Your task to perform on an android device: uninstall "Facebook Lite" Image 0: 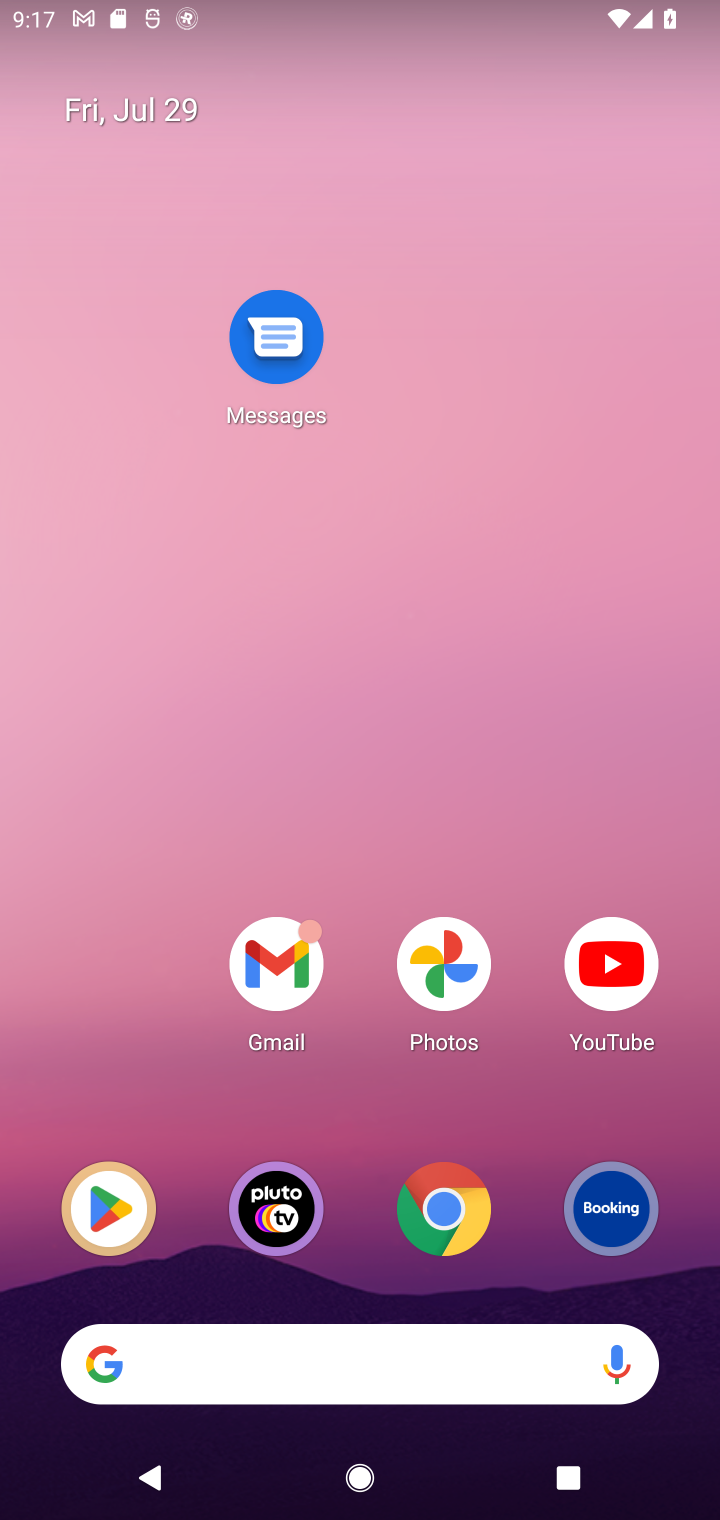
Step 0: drag from (298, 1343) to (350, 158)
Your task to perform on an android device: uninstall "Facebook Lite" Image 1: 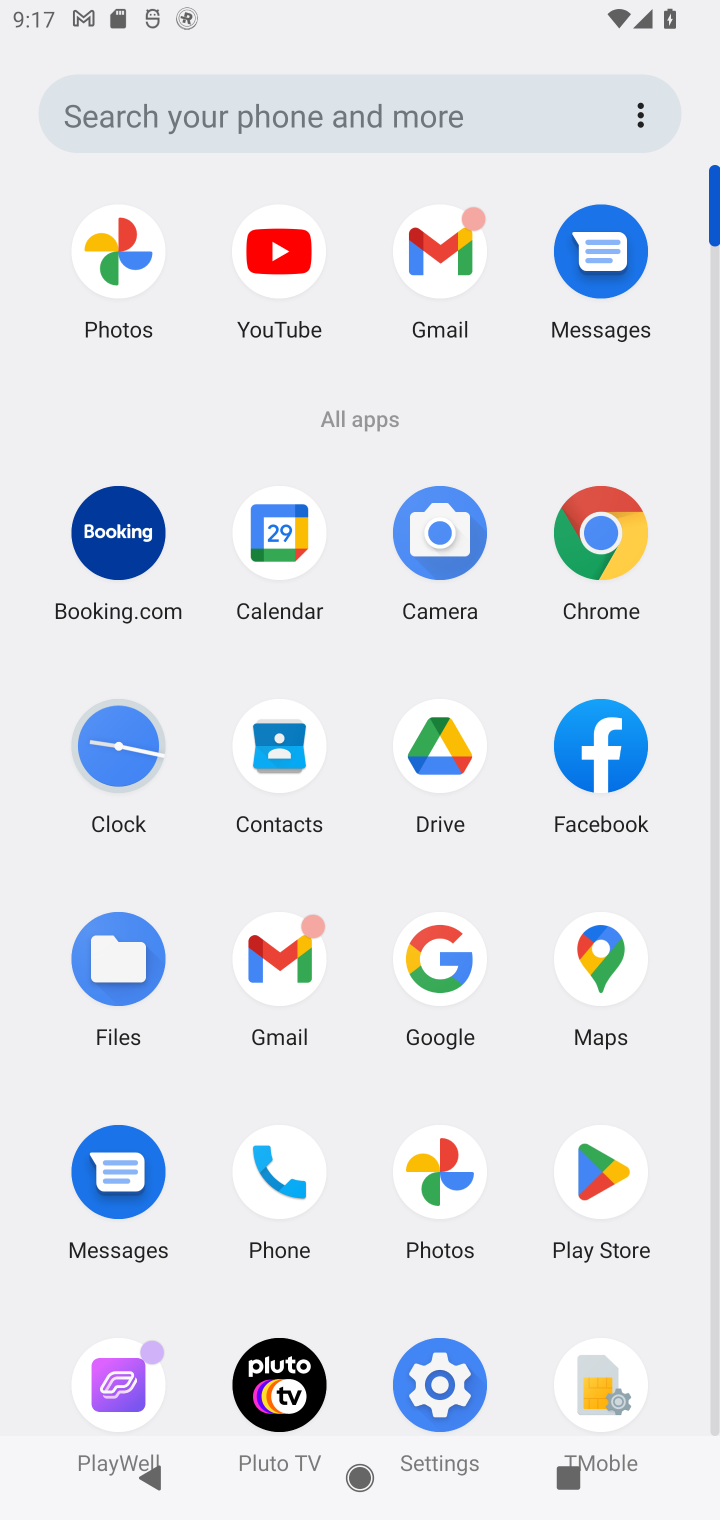
Step 1: drag from (349, 1242) to (342, 486)
Your task to perform on an android device: uninstall "Facebook Lite" Image 2: 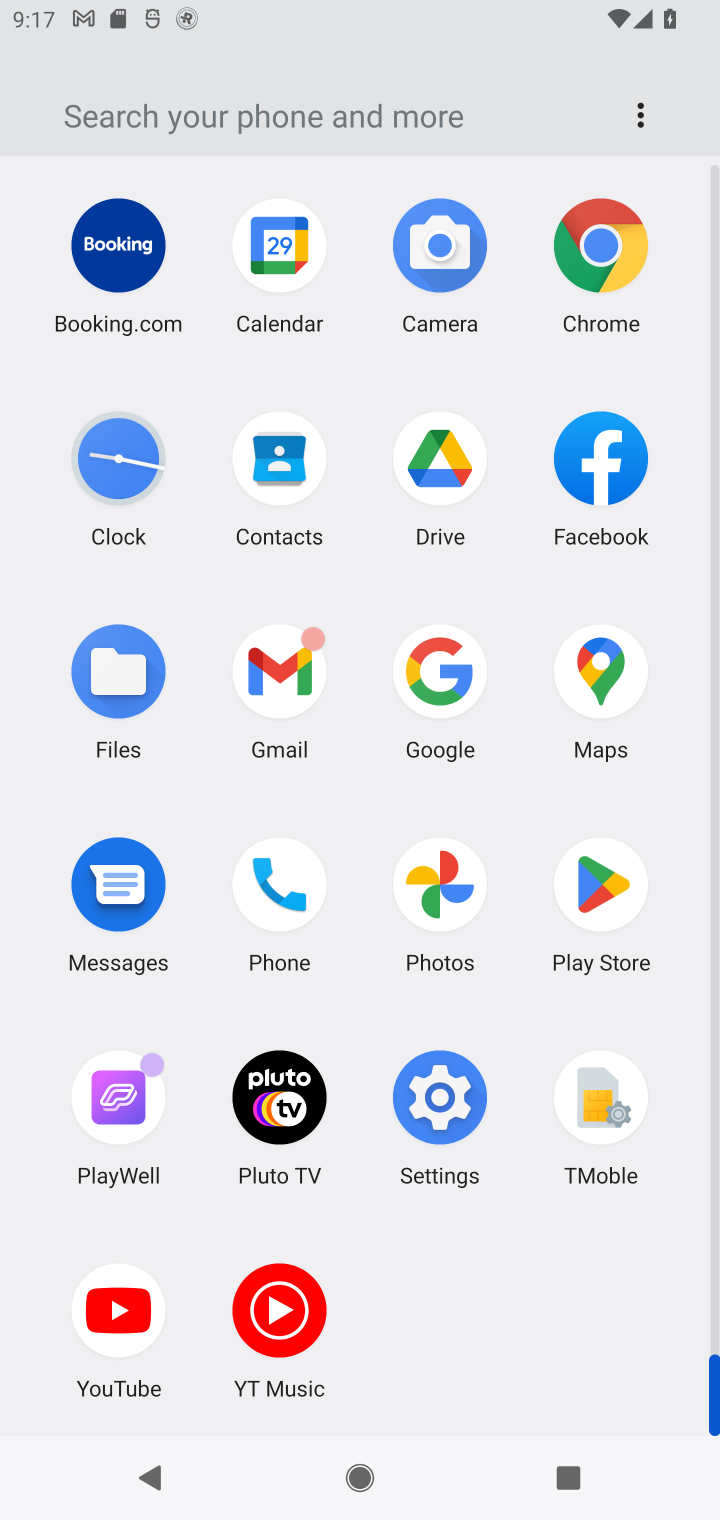
Step 2: click (600, 894)
Your task to perform on an android device: uninstall "Facebook Lite" Image 3: 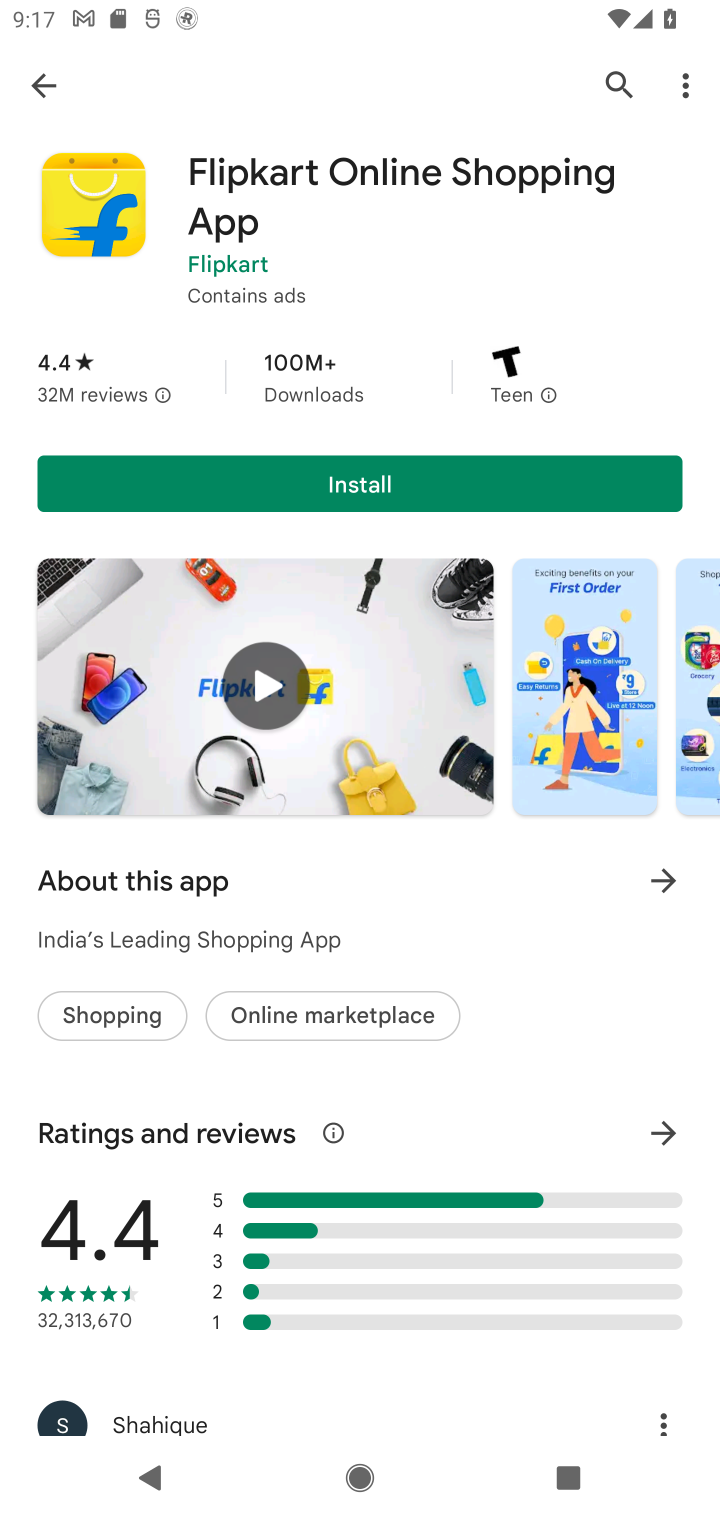
Step 3: click (616, 83)
Your task to perform on an android device: uninstall "Facebook Lite" Image 4: 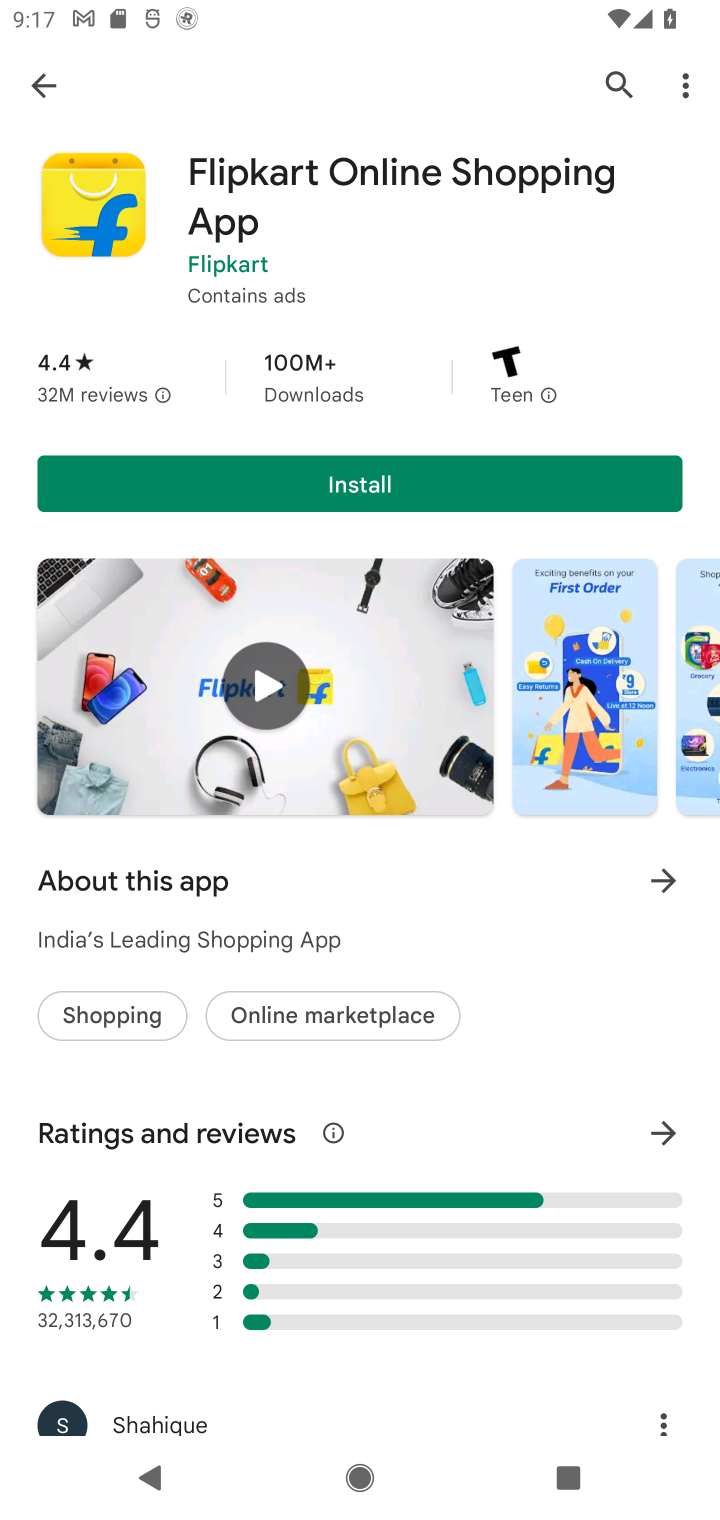
Step 4: click (548, 85)
Your task to perform on an android device: uninstall "Facebook Lite" Image 5: 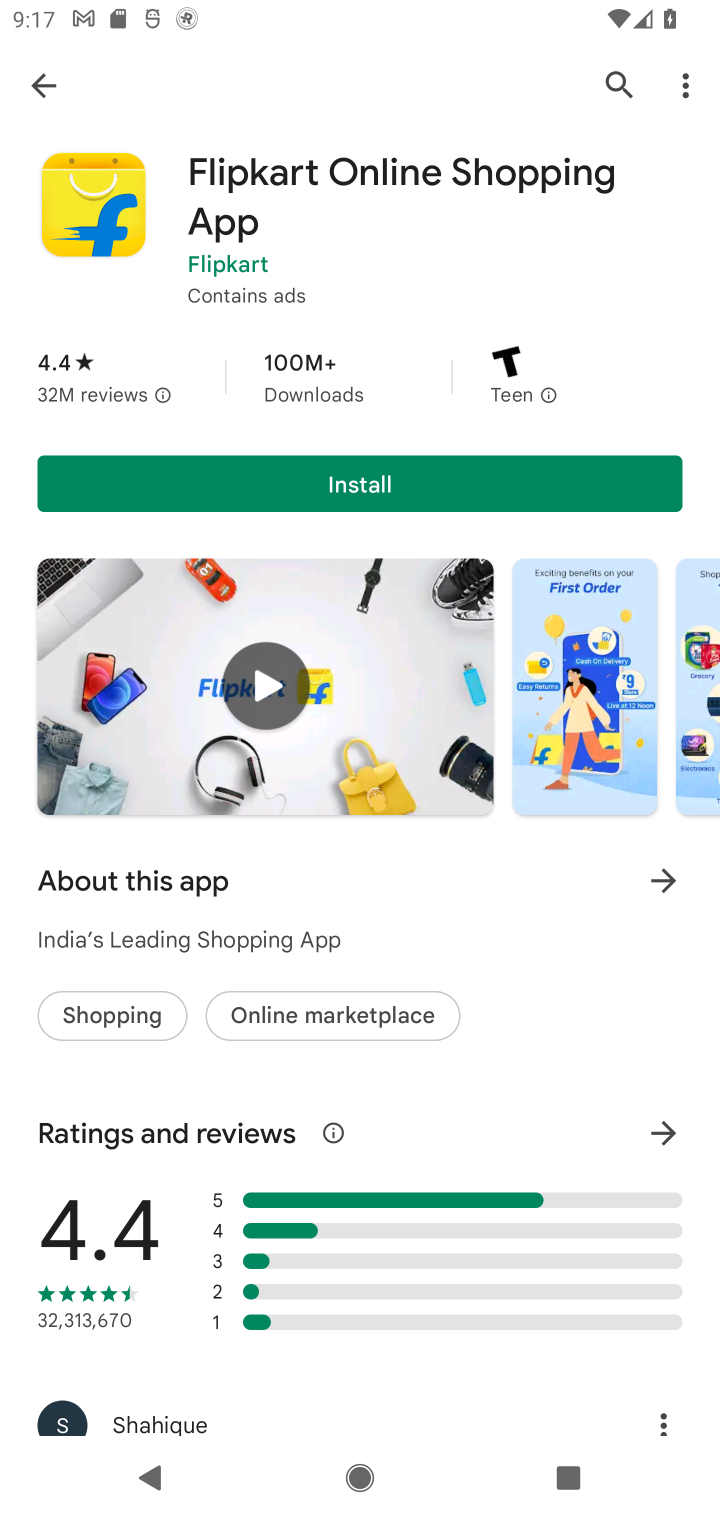
Step 5: click (615, 88)
Your task to perform on an android device: uninstall "Facebook Lite" Image 6: 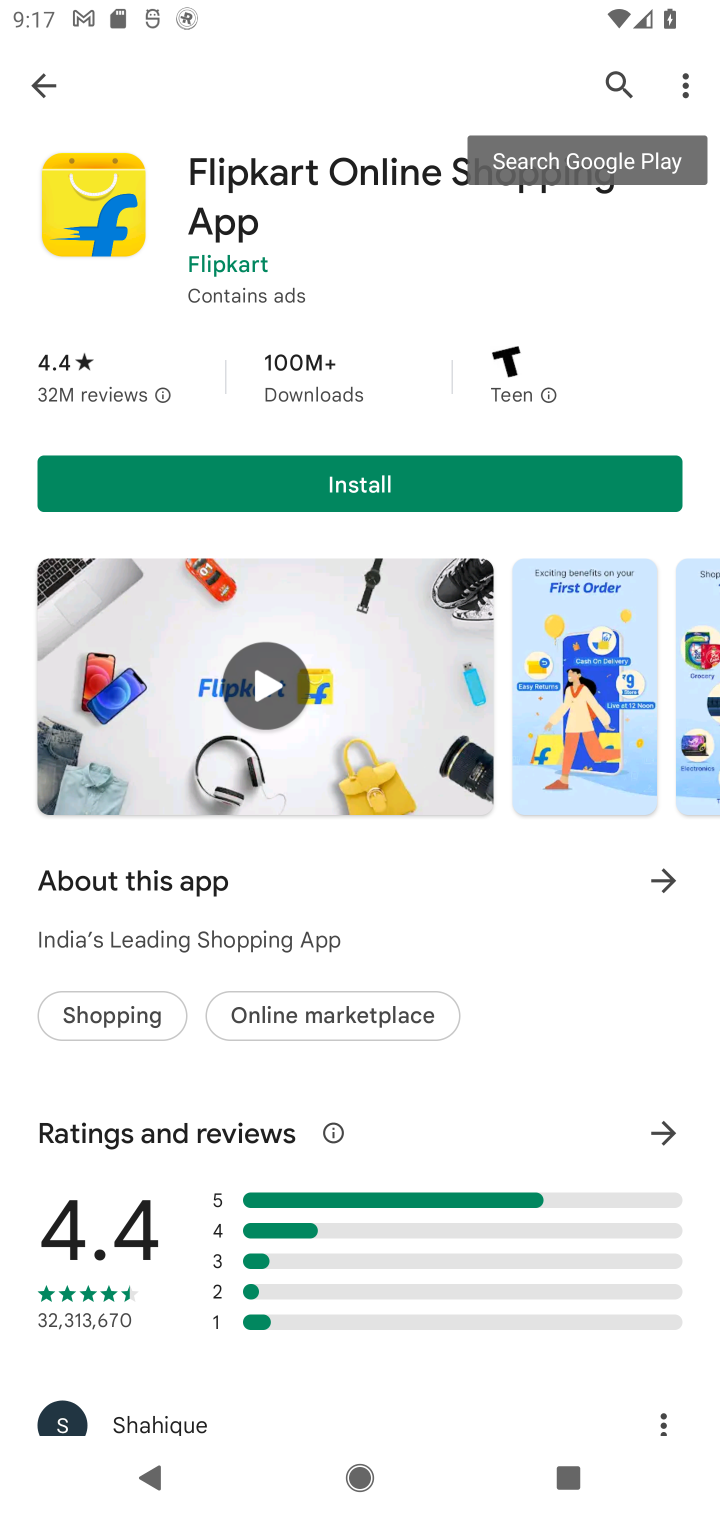
Step 6: click (373, 86)
Your task to perform on an android device: uninstall "Facebook Lite" Image 7: 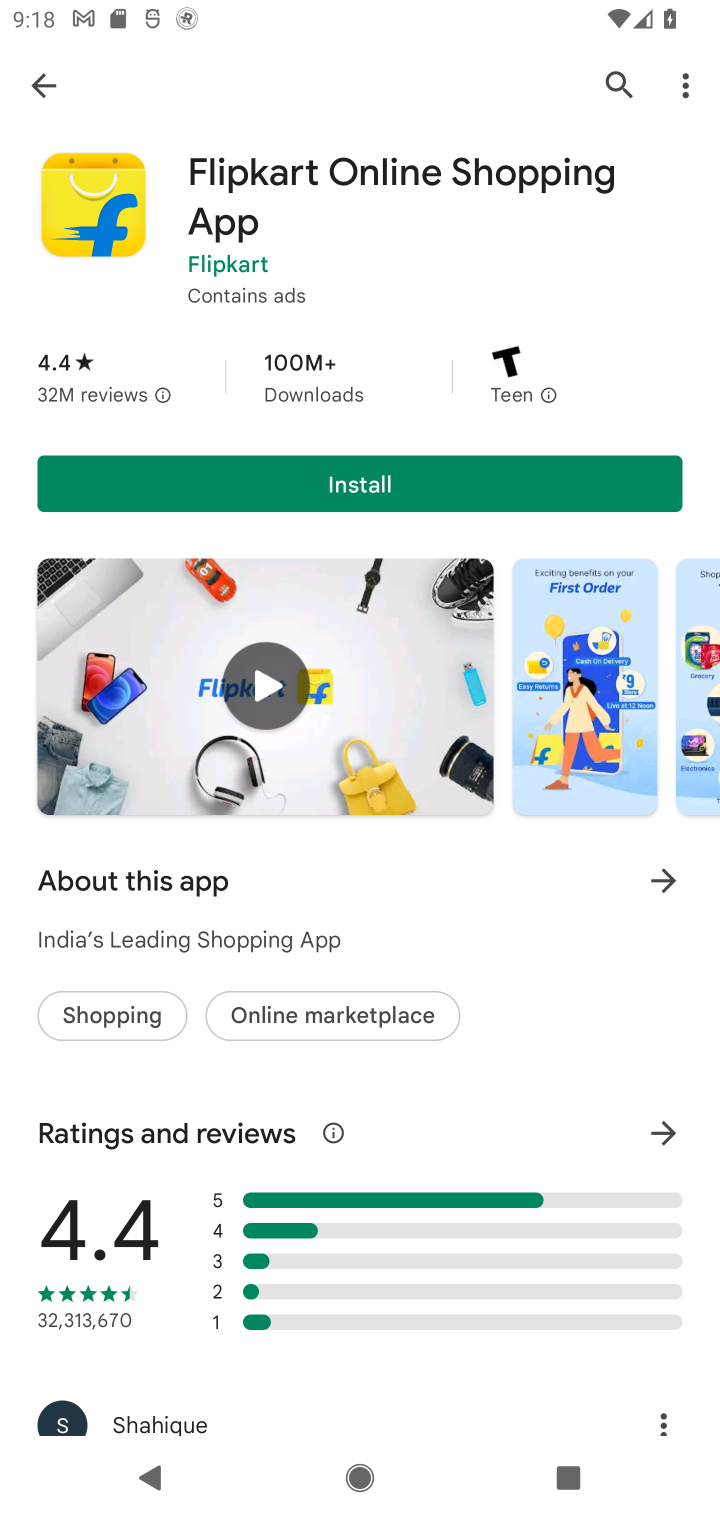
Step 7: press back button
Your task to perform on an android device: uninstall "Facebook Lite" Image 8: 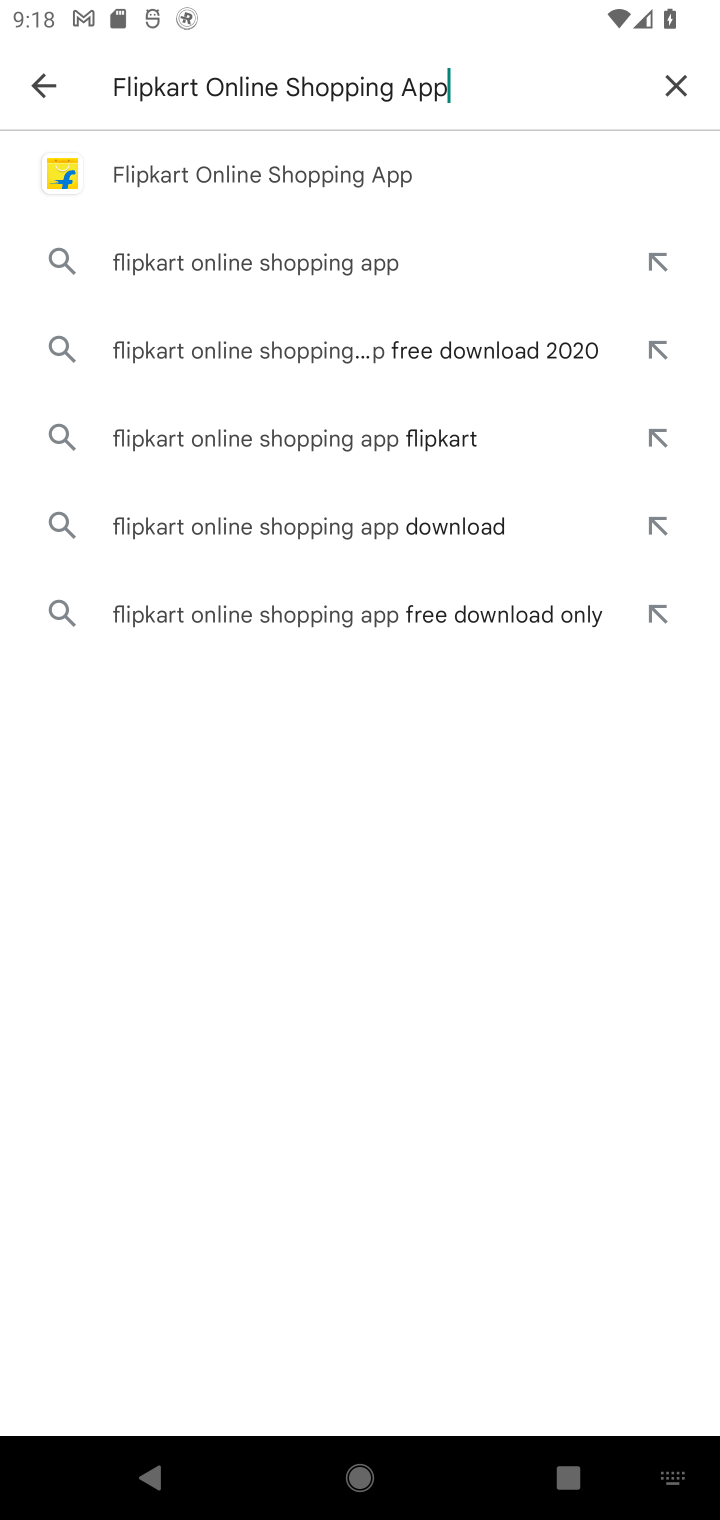
Step 8: click (669, 84)
Your task to perform on an android device: uninstall "Facebook Lite" Image 9: 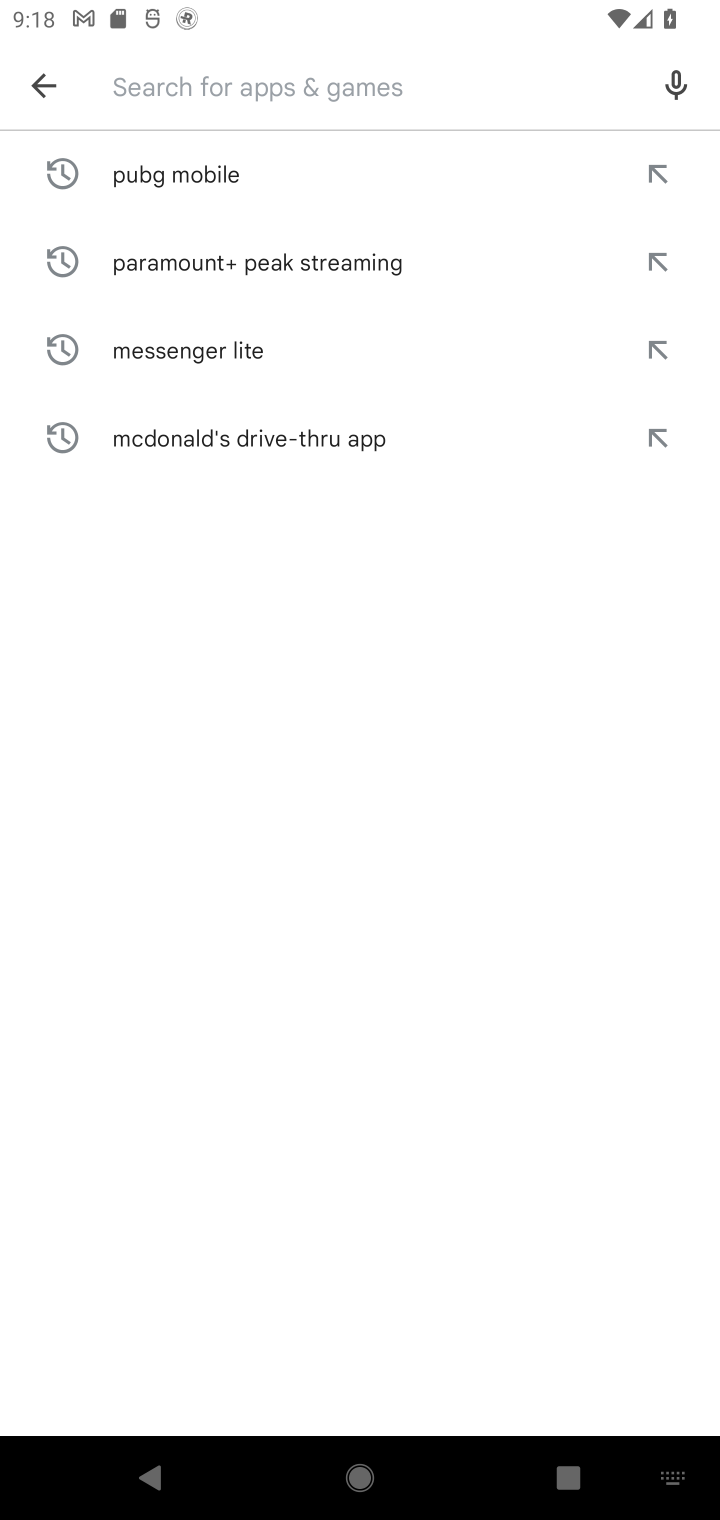
Step 9: type "Facebook Lite"
Your task to perform on an android device: uninstall "Facebook Lite" Image 10: 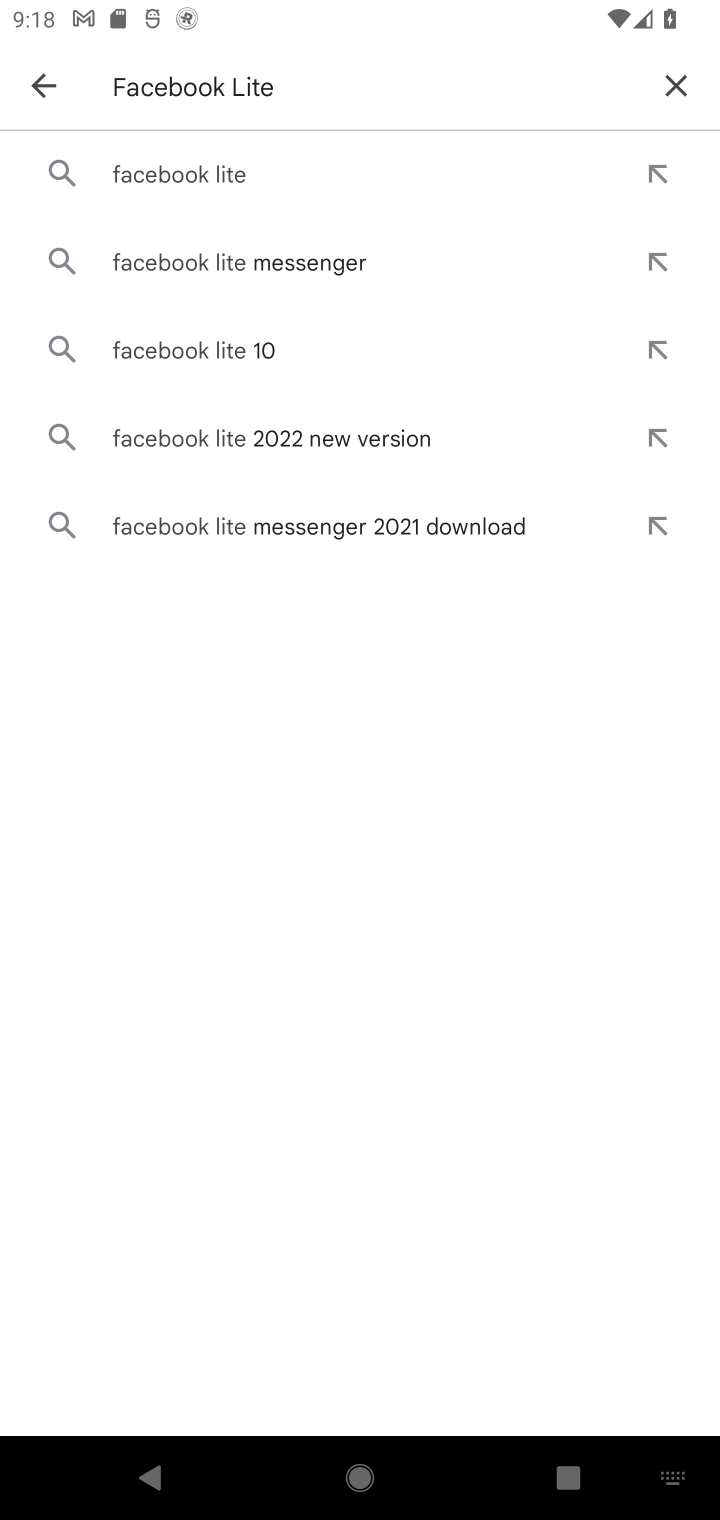
Step 10: click (166, 181)
Your task to perform on an android device: uninstall "Facebook Lite" Image 11: 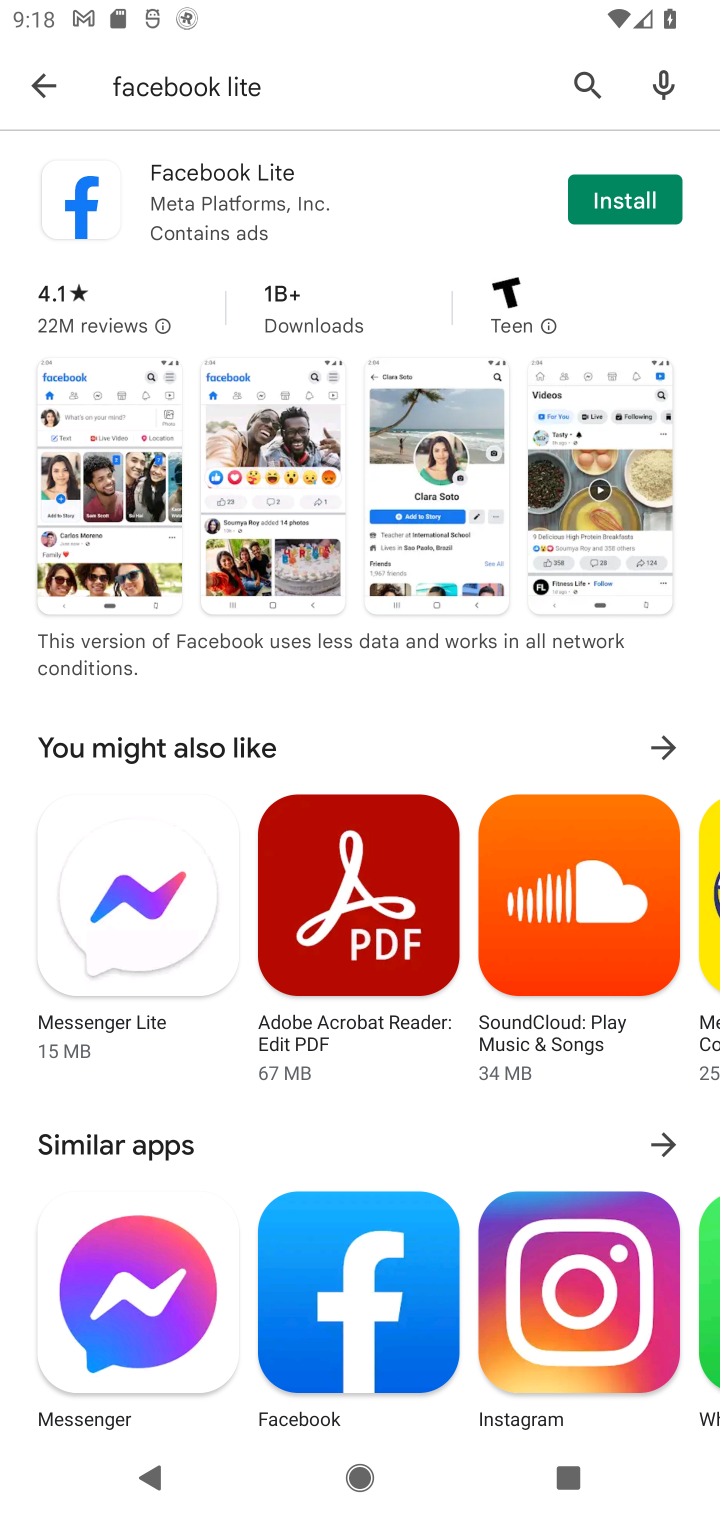
Step 11: task complete